Your task to perform on an android device: manage bookmarks in the chrome app Image 0: 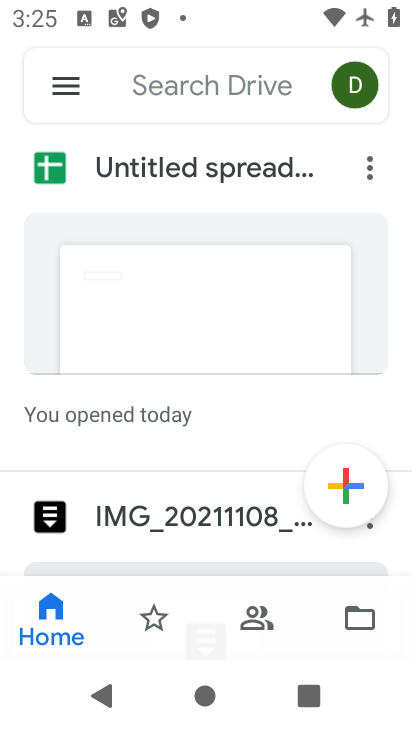
Step 0: press home button
Your task to perform on an android device: manage bookmarks in the chrome app Image 1: 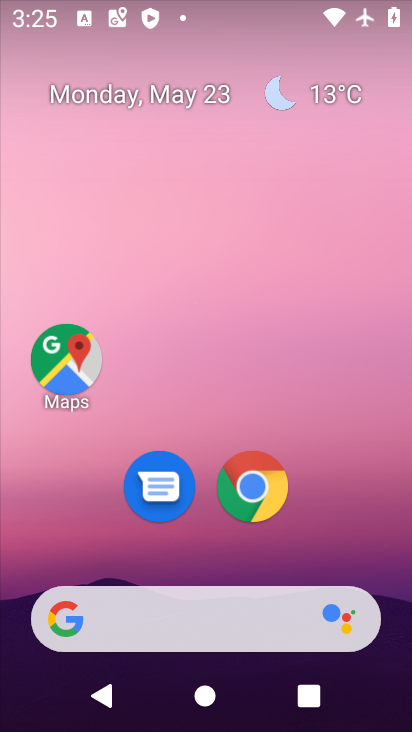
Step 1: click (246, 489)
Your task to perform on an android device: manage bookmarks in the chrome app Image 2: 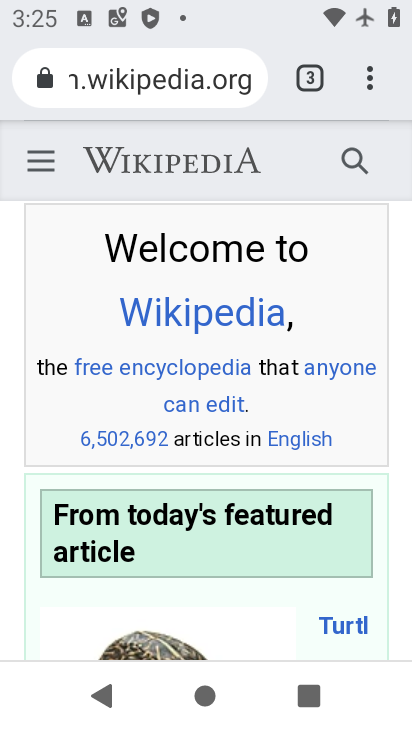
Step 2: click (367, 79)
Your task to perform on an android device: manage bookmarks in the chrome app Image 3: 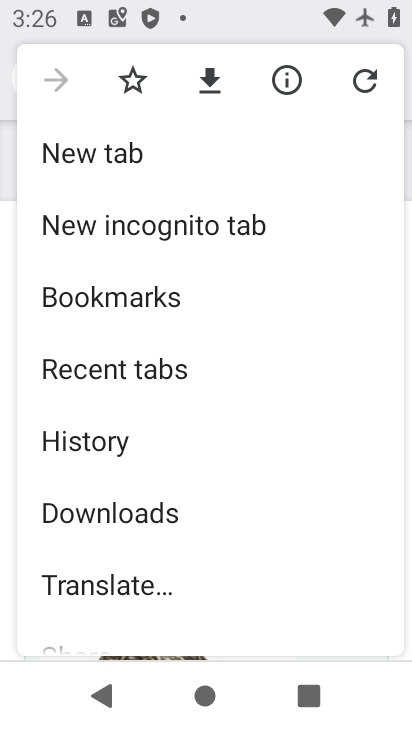
Step 3: drag from (200, 571) to (276, 131)
Your task to perform on an android device: manage bookmarks in the chrome app Image 4: 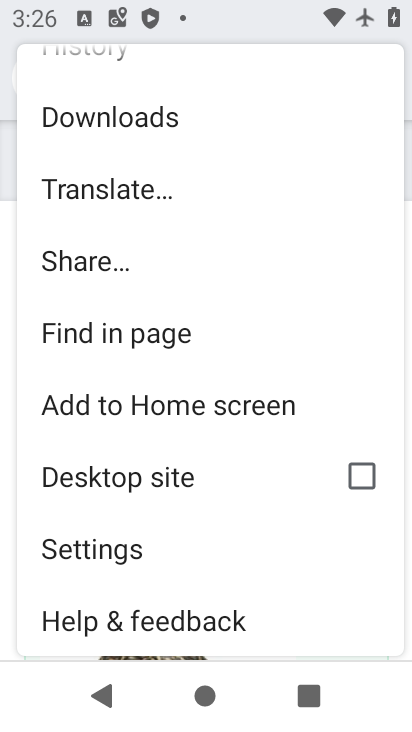
Step 4: drag from (280, 256) to (290, 614)
Your task to perform on an android device: manage bookmarks in the chrome app Image 5: 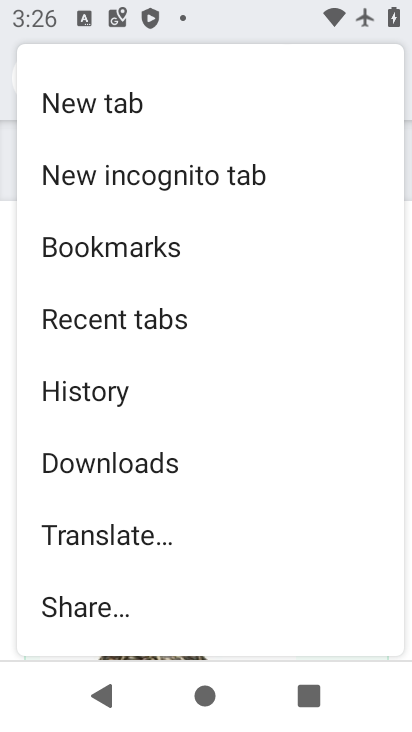
Step 5: click (110, 256)
Your task to perform on an android device: manage bookmarks in the chrome app Image 6: 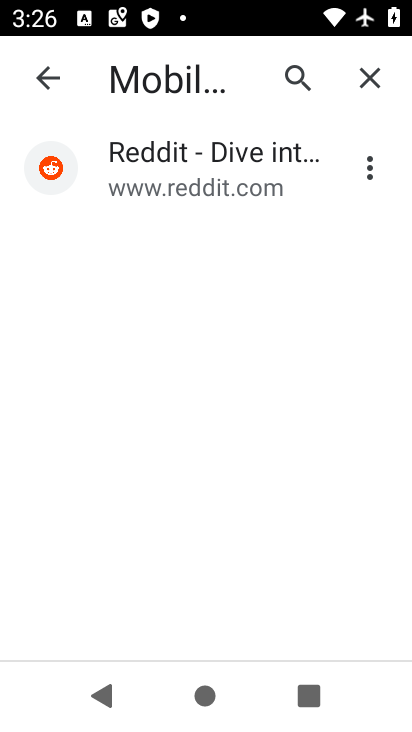
Step 6: click (227, 175)
Your task to perform on an android device: manage bookmarks in the chrome app Image 7: 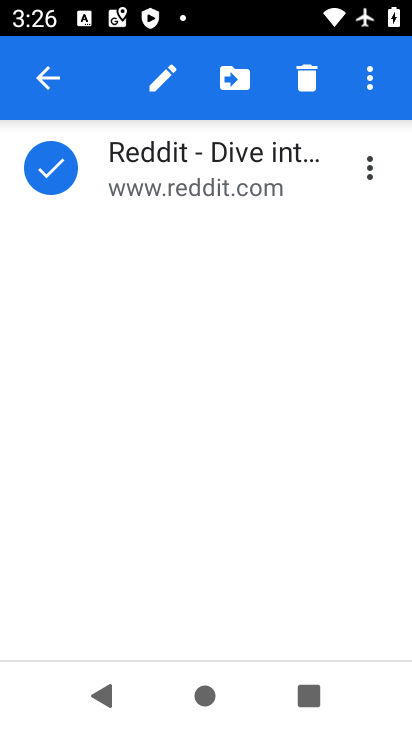
Step 7: click (235, 78)
Your task to perform on an android device: manage bookmarks in the chrome app Image 8: 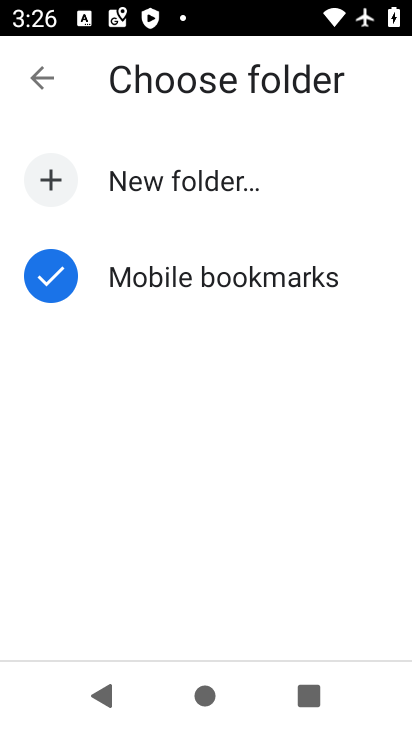
Step 8: click (45, 178)
Your task to perform on an android device: manage bookmarks in the chrome app Image 9: 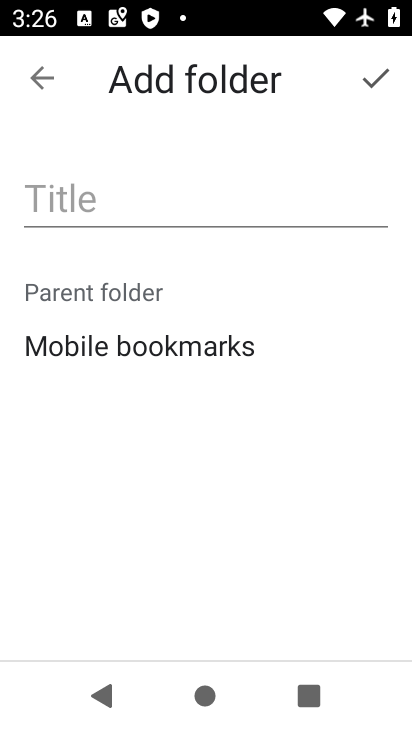
Step 9: type "tfjk"
Your task to perform on an android device: manage bookmarks in the chrome app Image 10: 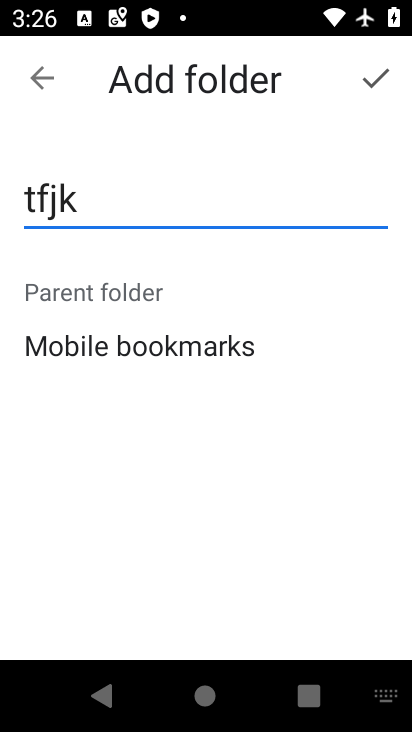
Step 10: click (374, 74)
Your task to perform on an android device: manage bookmarks in the chrome app Image 11: 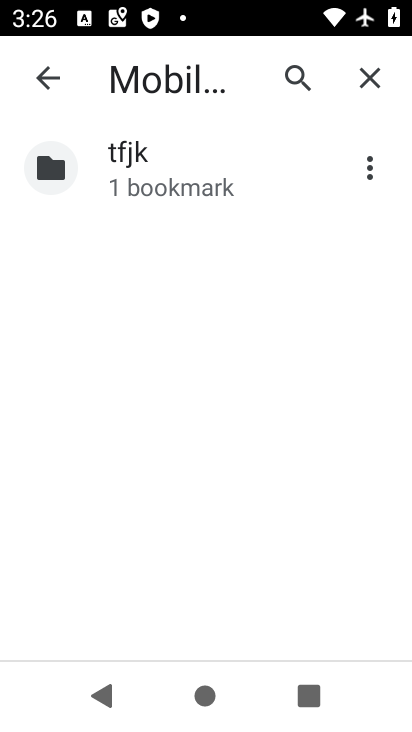
Step 11: task complete